Your task to perform on an android device: Open Reddit.com Image 0: 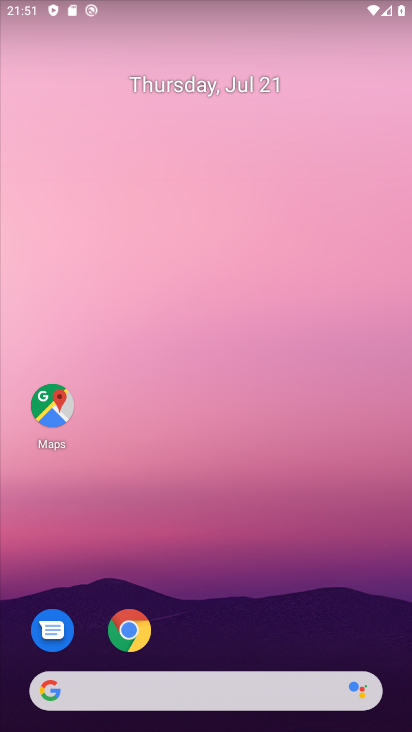
Step 0: click (152, 623)
Your task to perform on an android device: Open Reddit.com Image 1: 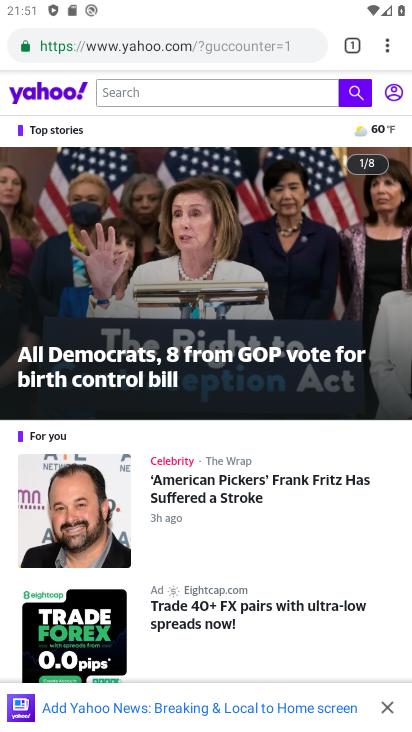
Step 1: click (352, 44)
Your task to perform on an android device: Open Reddit.com Image 2: 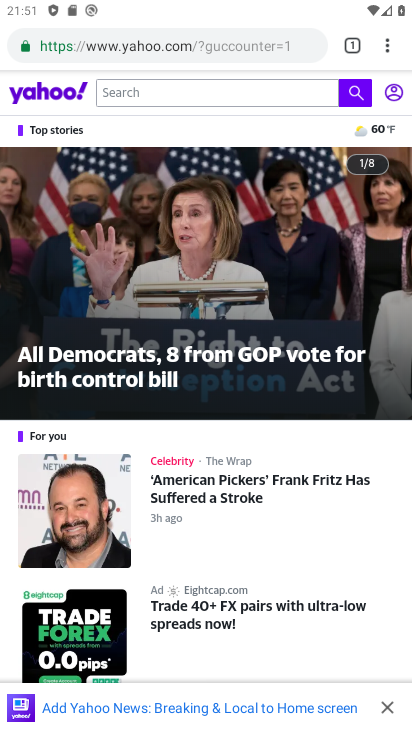
Step 2: click (349, 49)
Your task to perform on an android device: Open Reddit.com Image 3: 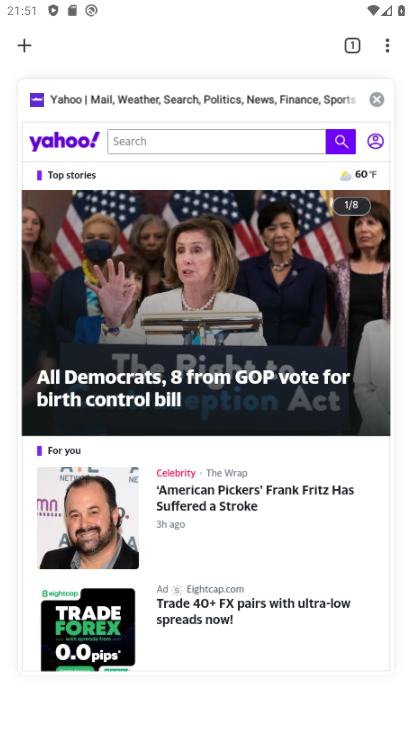
Step 3: click (18, 47)
Your task to perform on an android device: Open Reddit.com Image 4: 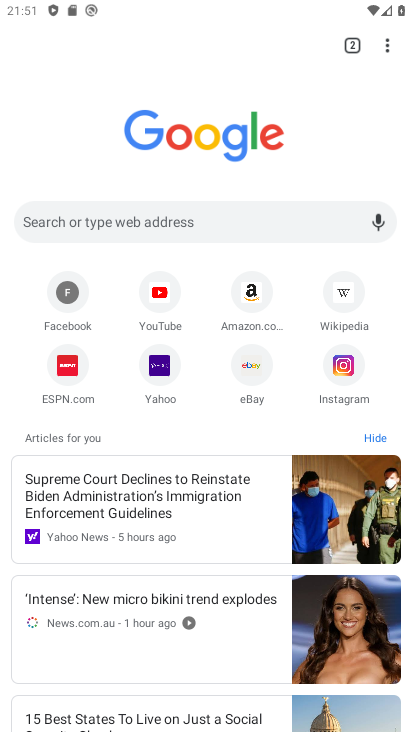
Step 4: click (239, 223)
Your task to perform on an android device: Open Reddit.com Image 5: 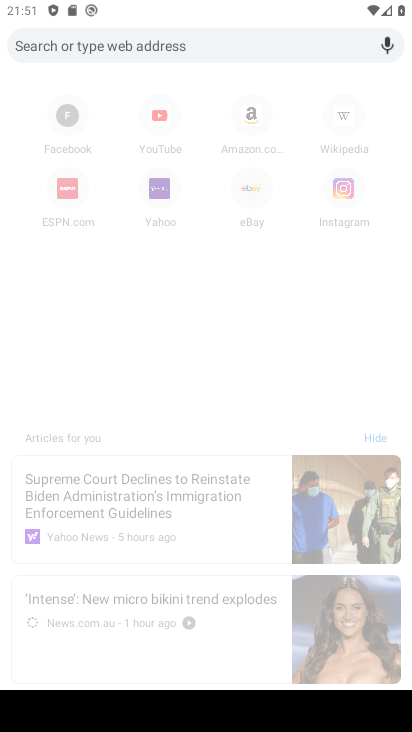
Step 5: type "reddit"
Your task to perform on an android device: Open Reddit.com Image 6: 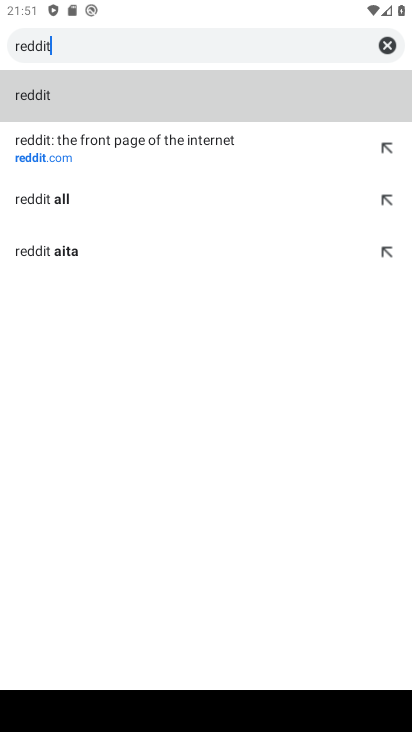
Step 6: click (88, 131)
Your task to perform on an android device: Open Reddit.com Image 7: 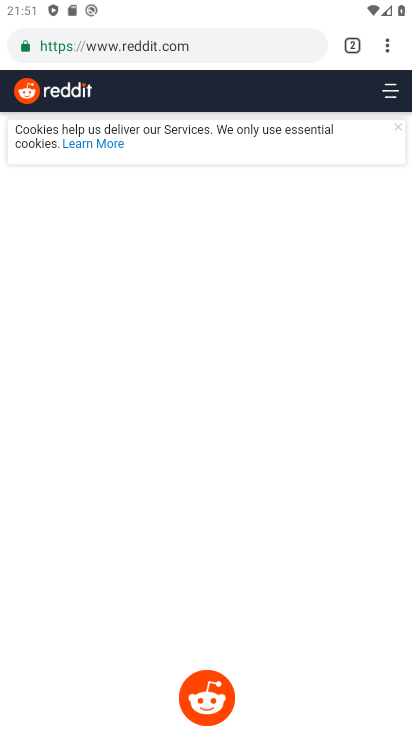
Step 7: task complete